Your task to perform on an android device: toggle airplane mode Image 0: 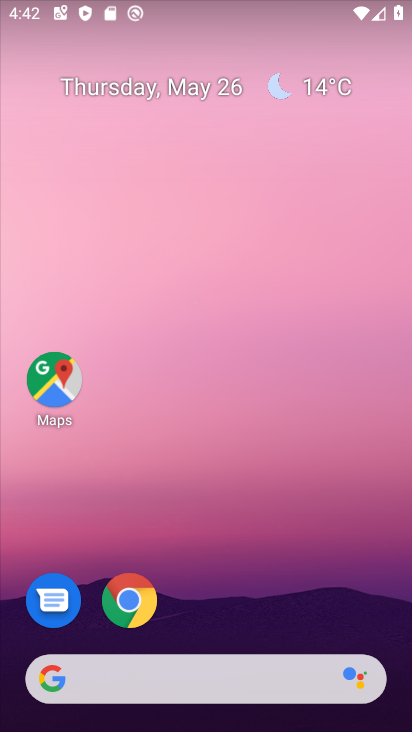
Step 0: drag from (200, 14) to (228, 677)
Your task to perform on an android device: toggle airplane mode Image 1: 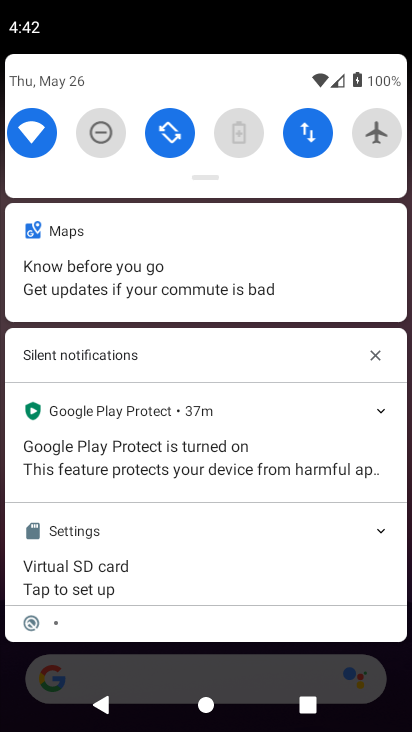
Step 1: click (377, 135)
Your task to perform on an android device: toggle airplane mode Image 2: 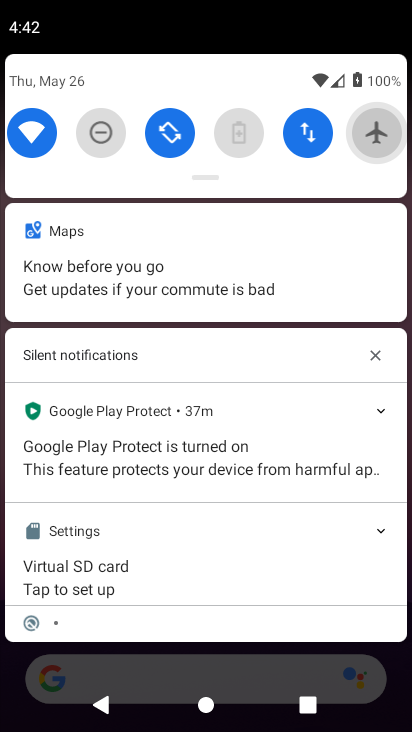
Step 2: click (377, 135)
Your task to perform on an android device: toggle airplane mode Image 3: 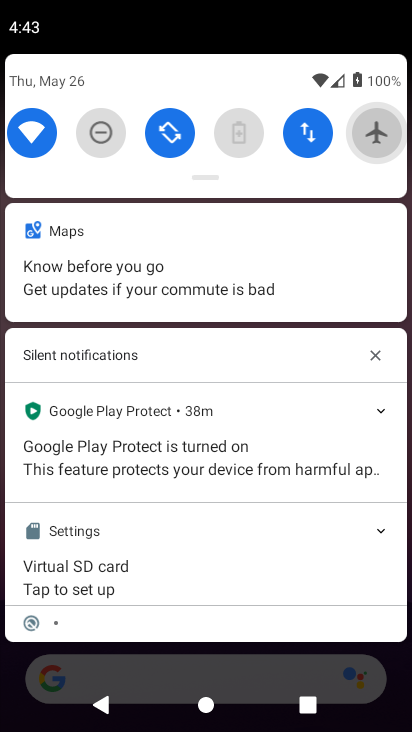
Step 3: click (377, 135)
Your task to perform on an android device: toggle airplane mode Image 4: 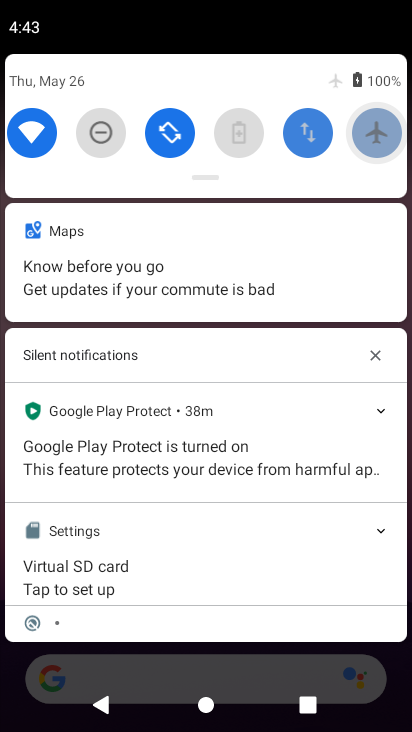
Step 4: click (377, 135)
Your task to perform on an android device: toggle airplane mode Image 5: 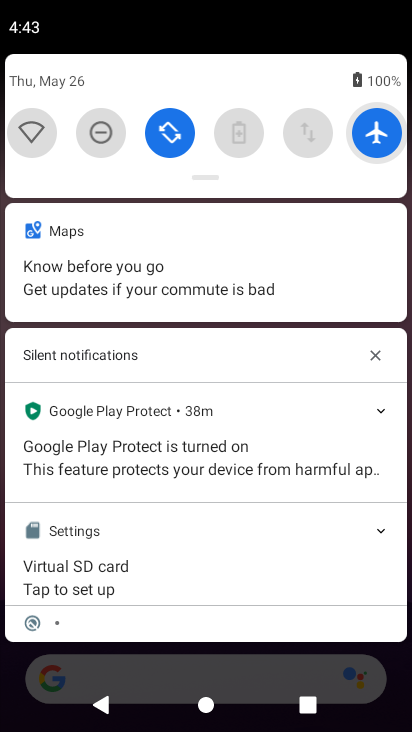
Step 5: click (377, 135)
Your task to perform on an android device: toggle airplane mode Image 6: 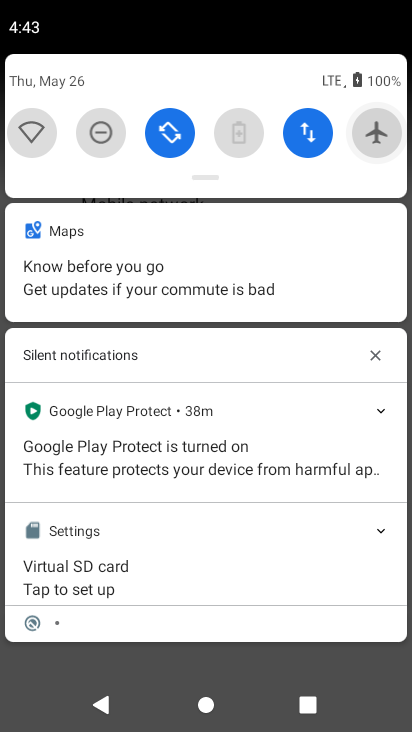
Step 6: drag from (377, 135) to (302, 343)
Your task to perform on an android device: toggle airplane mode Image 7: 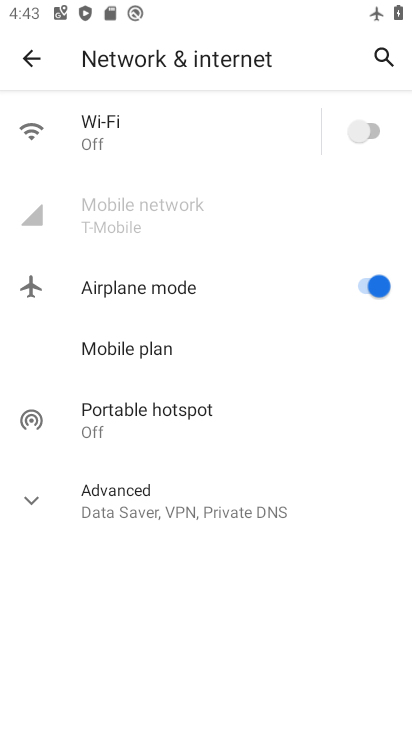
Step 7: click (365, 291)
Your task to perform on an android device: toggle airplane mode Image 8: 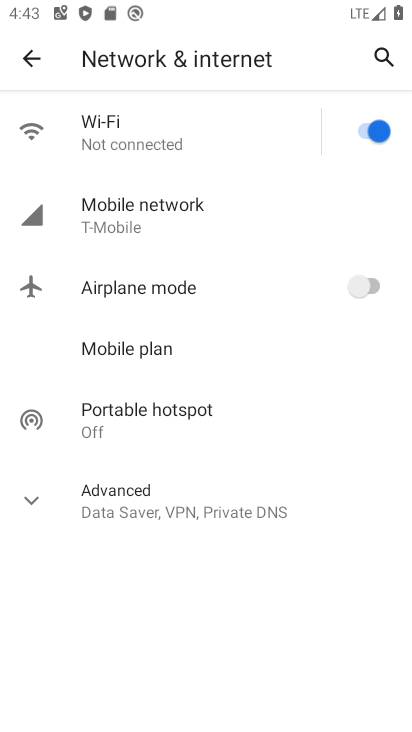
Step 8: task complete